Your task to perform on an android device: toggle show notifications on the lock screen Image 0: 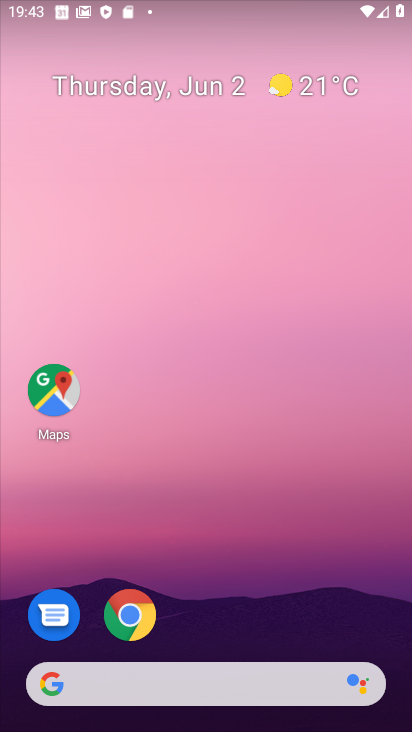
Step 0: drag from (210, 623) to (232, 175)
Your task to perform on an android device: toggle show notifications on the lock screen Image 1: 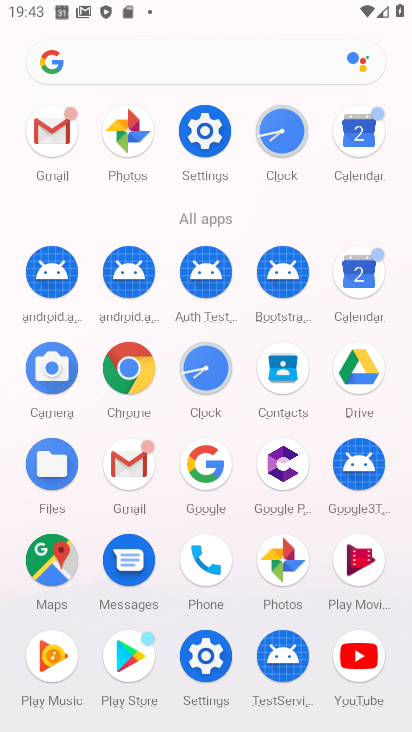
Step 1: click (197, 144)
Your task to perform on an android device: toggle show notifications on the lock screen Image 2: 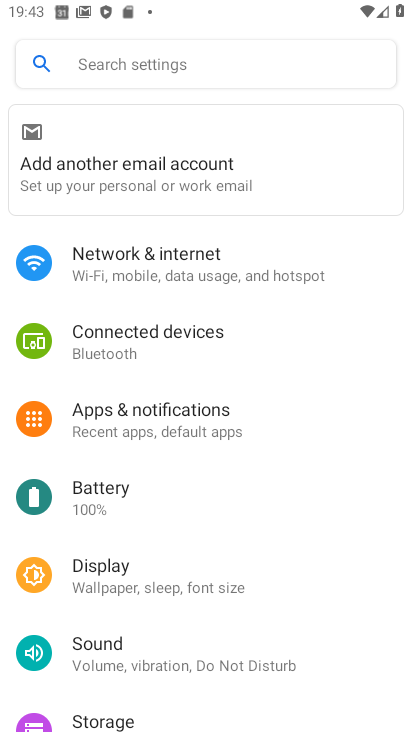
Step 2: click (234, 315)
Your task to perform on an android device: toggle show notifications on the lock screen Image 3: 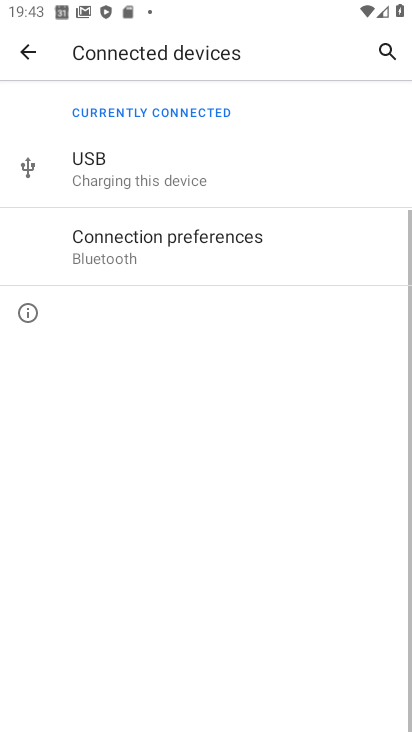
Step 3: click (41, 64)
Your task to perform on an android device: toggle show notifications on the lock screen Image 4: 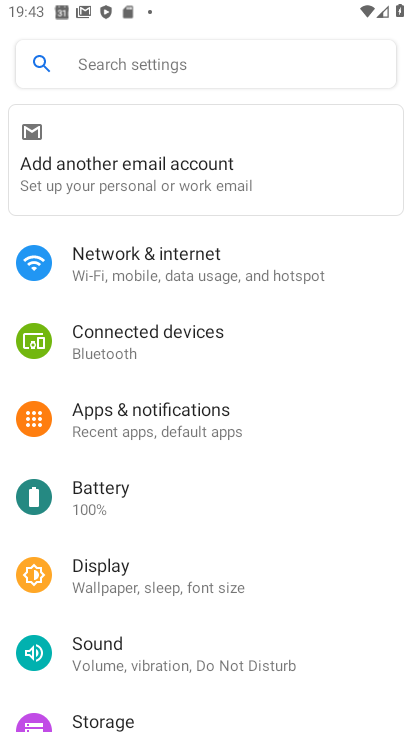
Step 4: click (233, 325)
Your task to perform on an android device: toggle show notifications on the lock screen Image 5: 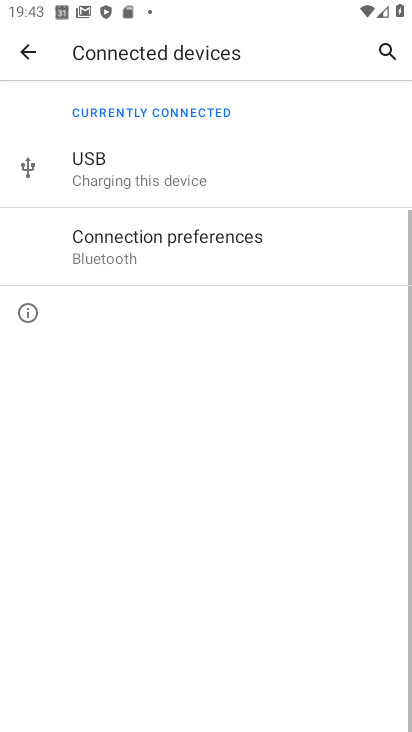
Step 5: click (32, 46)
Your task to perform on an android device: toggle show notifications on the lock screen Image 6: 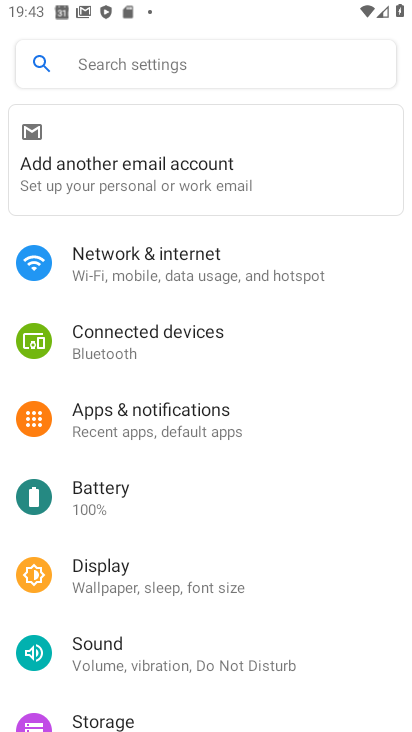
Step 6: click (112, 408)
Your task to perform on an android device: toggle show notifications on the lock screen Image 7: 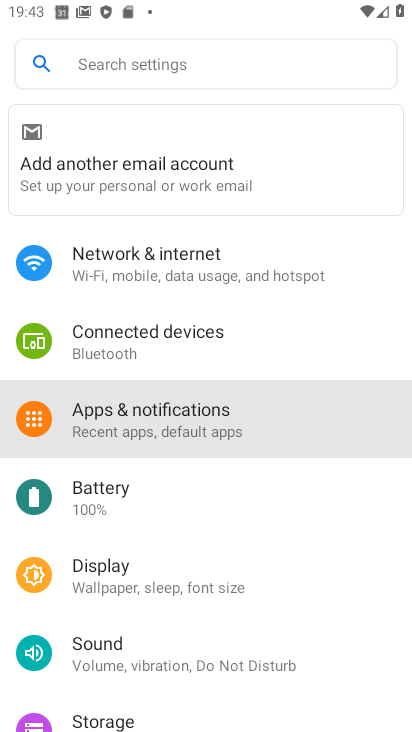
Step 7: task complete